Your task to perform on an android device: Open CNN.com Image 0: 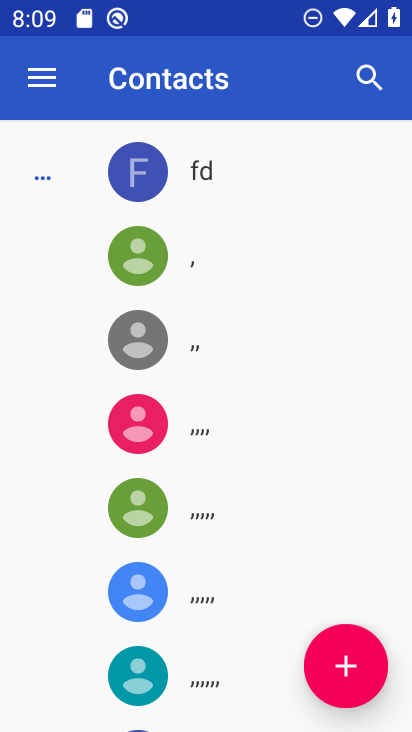
Step 0: press home button
Your task to perform on an android device: Open CNN.com Image 1: 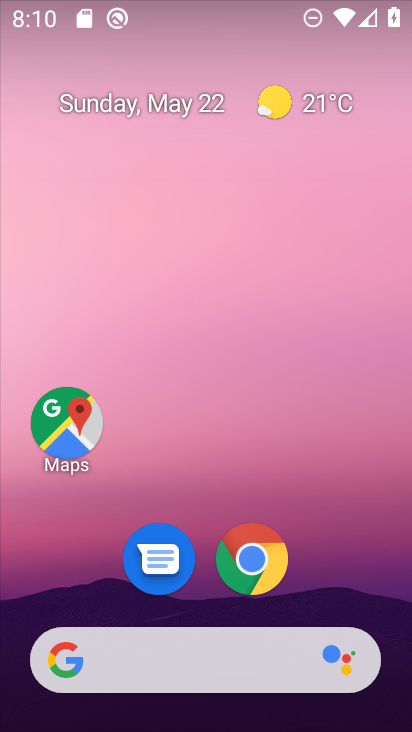
Step 1: drag from (220, 701) to (232, 84)
Your task to perform on an android device: Open CNN.com Image 2: 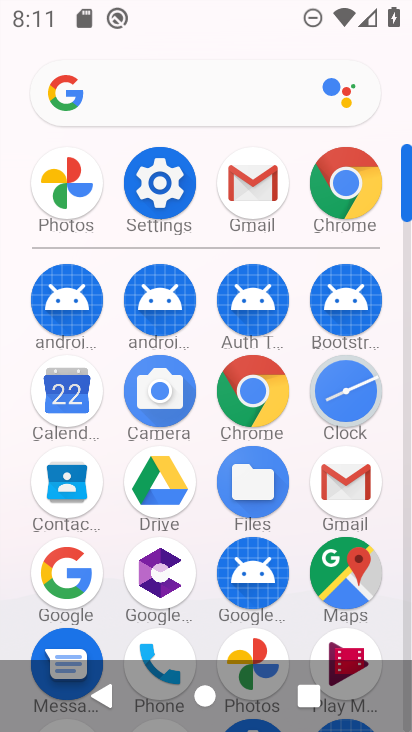
Step 2: click (352, 170)
Your task to perform on an android device: Open CNN.com Image 3: 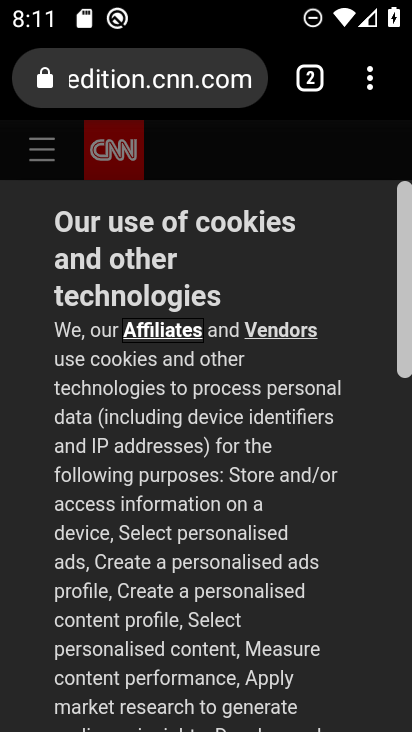
Step 3: drag from (299, 614) to (269, 184)
Your task to perform on an android device: Open CNN.com Image 4: 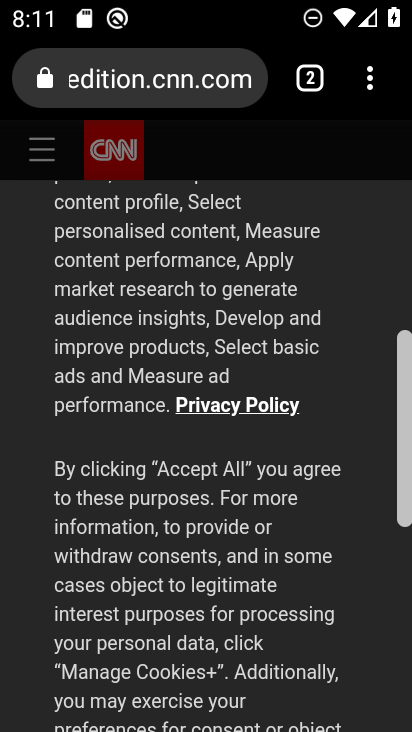
Step 4: drag from (232, 640) to (172, 299)
Your task to perform on an android device: Open CNN.com Image 5: 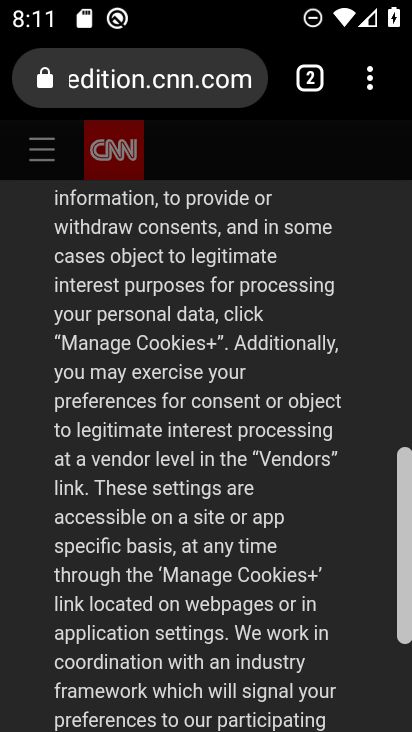
Step 5: drag from (254, 682) to (175, 198)
Your task to perform on an android device: Open CNN.com Image 6: 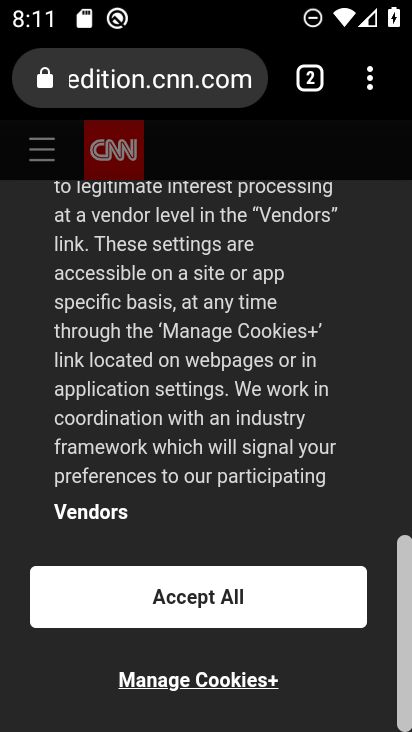
Step 6: click (229, 596)
Your task to perform on an android device: Open CNN.com Image 7: 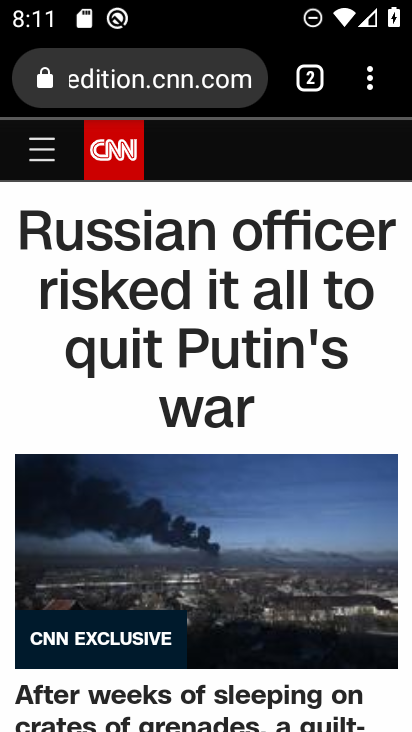
Step 7: task complete